Your task to perform on an android device: see tabs open on other devices in the chrome app Image 0: 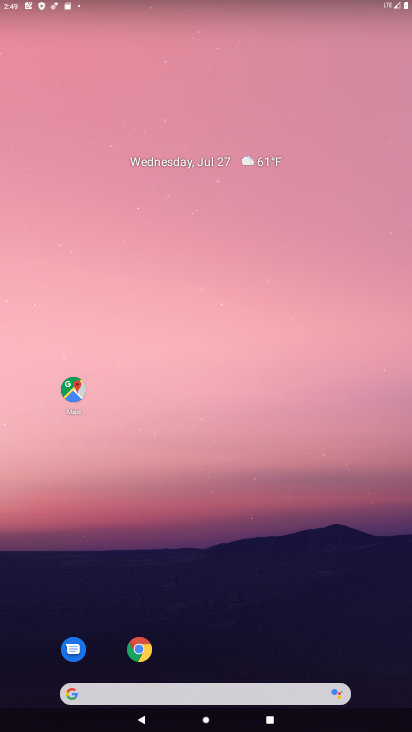
Step 0: click (135, 649)
Your task to perform on an android device: see tabs open on other devices in the chrome app Image 1: 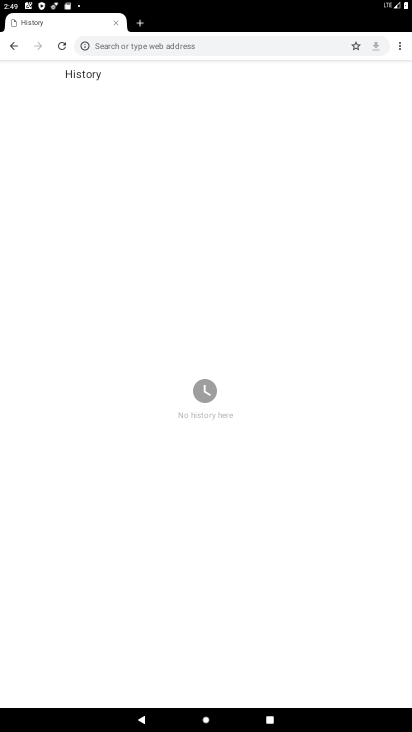
Step 1: click (399, 47)
Your task to perform on an android device: see tabs open on other devices in the chrome app Image 2: 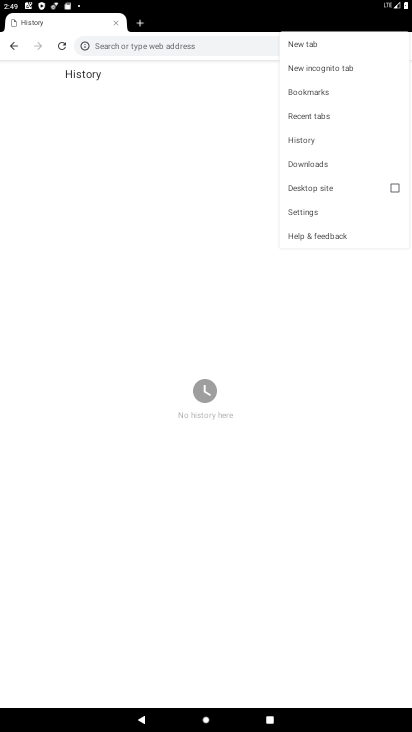
Step 2: click (308, 115)
Your task to perform on an android device: see tabs open on other devices in the chrome app Image 3: 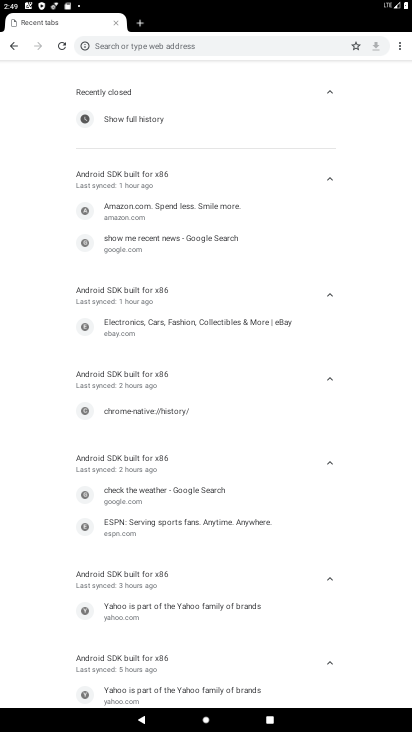
Step 3: task complete